Your task to perform on an android device: Open eBay Image 0: 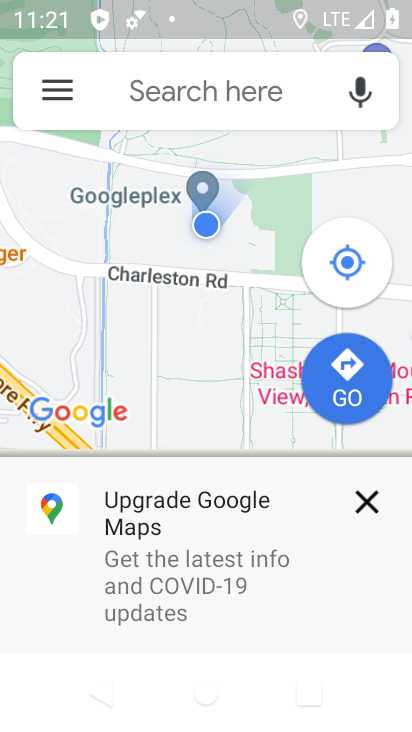
Step 0: press home button
Your task to perform on an android device: Open eBay Image 1: 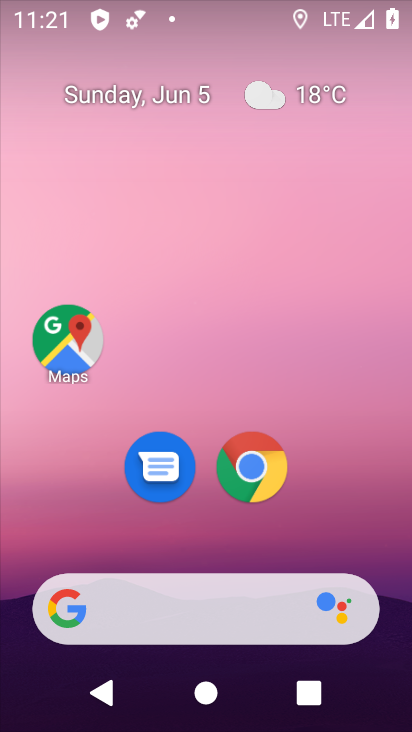
Step 1: click (271, 471)
Your task to perform on an android device: Open eBay Image 2: 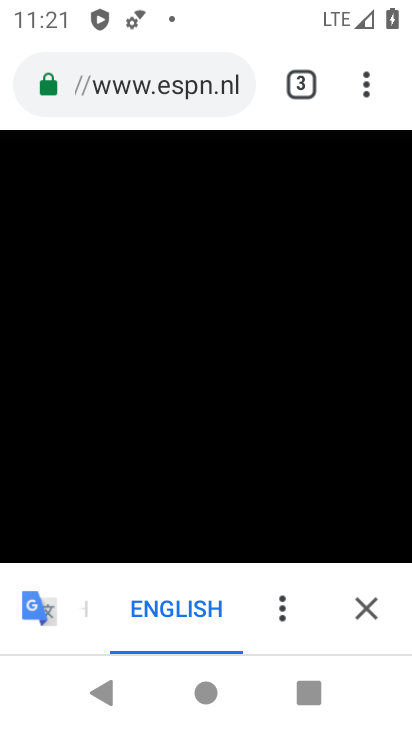
Step 2: click (299, 72)
Your task to perform on an android device: Open eBay Image 3: 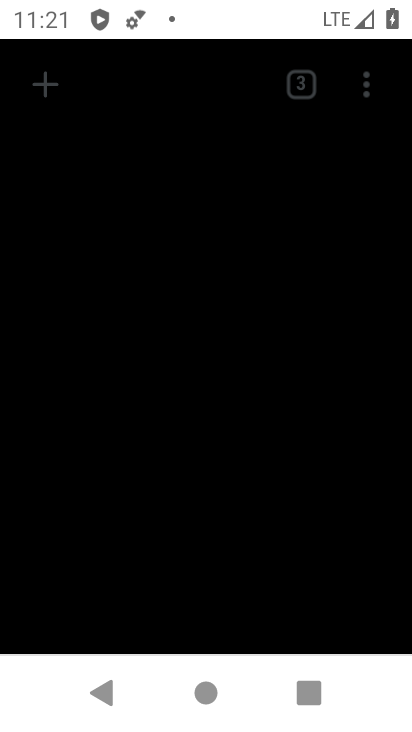
Step 3: click (36, 82)
Your task to perform on an android device: Open eBay Image 4: 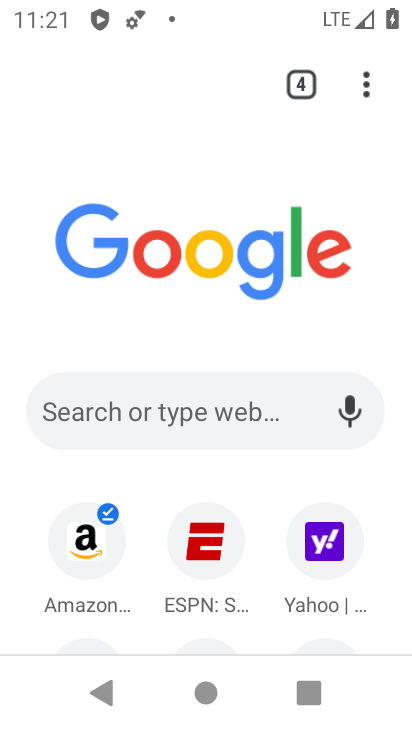
Step 4: drag from (258, 599) to (256, 304)
Your task to perform on an android device: Open eBay Image 5: 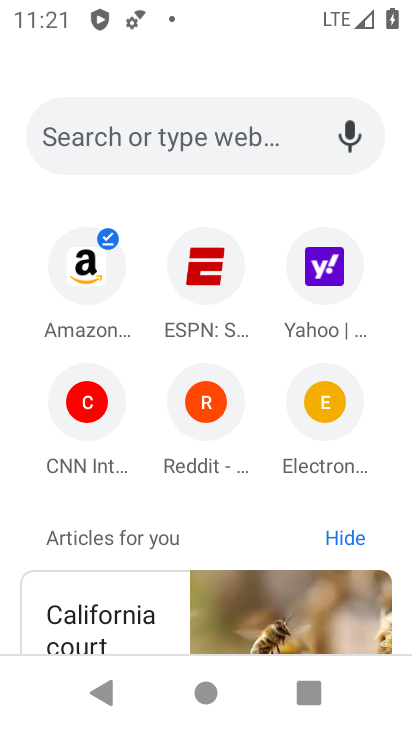
Step 5: click (325, 384)
Your task to perform on an android device: Open eBay Image 6: 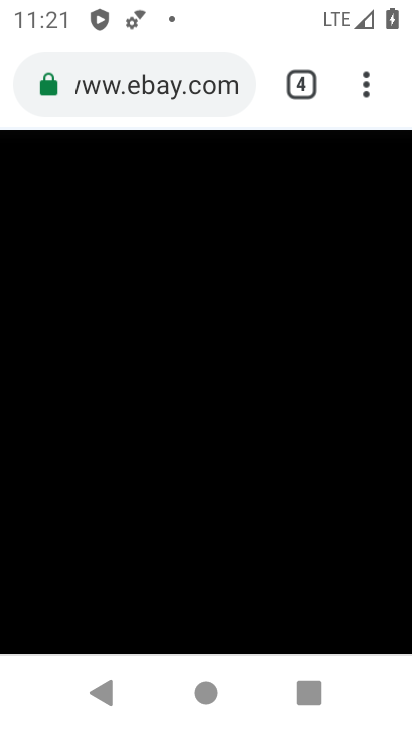
Step 6: task complete